Your task to perform on an android device: open app "Gboard" Image 0: 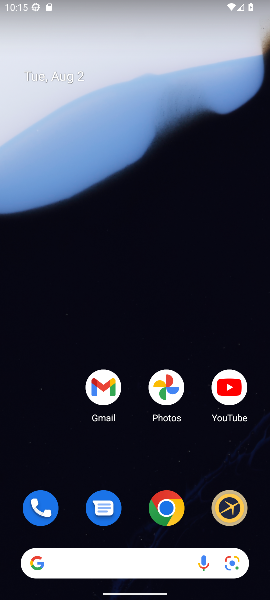
Step 0: drag from (143, 453) to (170, 10)
Your task to perform on an android device: open app "Gboard" Image 1: 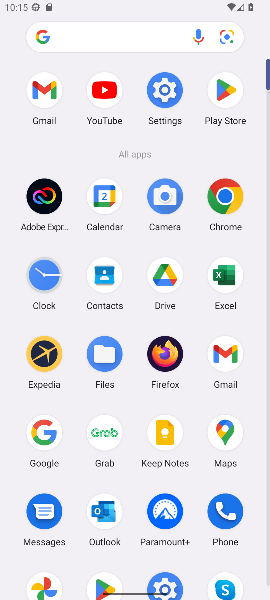
Step 1: click (231, 88)
Your task to perform on an android device: open app "Gboard" Image 2: 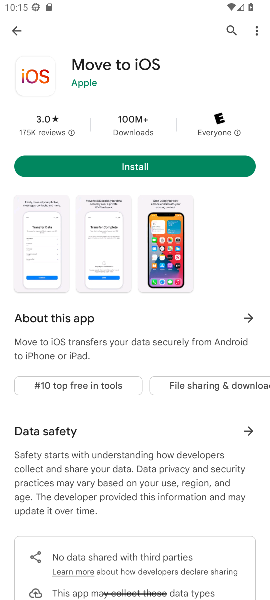
Step 2: click (226, 32)
Your task to perform on an android device: open app "Gboard" Image 3: 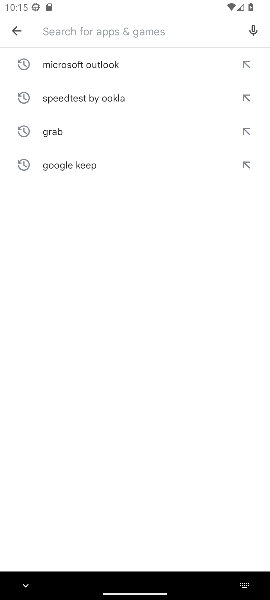
Step 3: type "Gboard"
Your task to perform on an android device: open app "Gboard" Image 4: 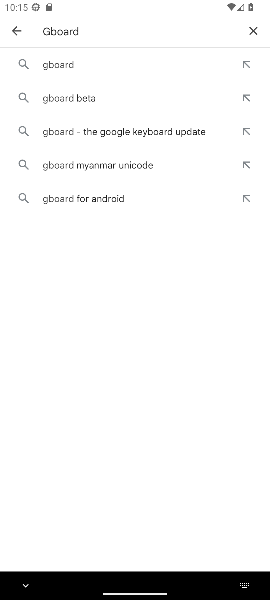
Step 4: click (62, 65)
Your task to perform on an android device: open app "Gboard" Image 5: 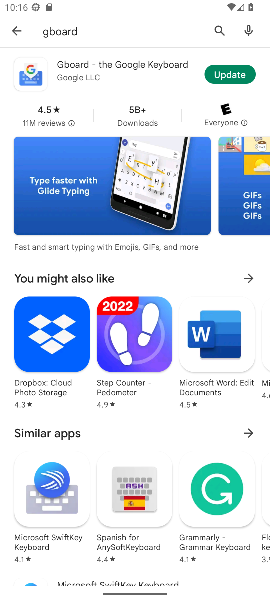
Step 5: click (65, 65)
Your task to perform on an android device: open app "Gboard" Image 6: 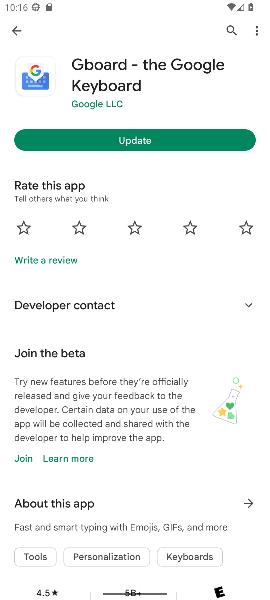
Step 6: task complete